Your task to perform on an android device: change the clock display to digital Image 0: 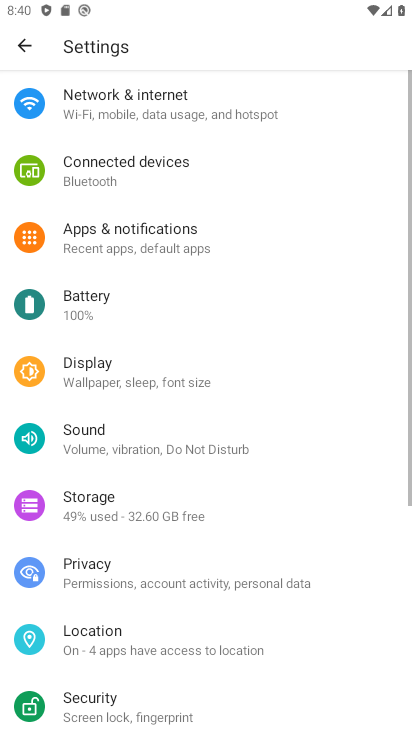
Step 0: press home button
Your task to perform on an android device: change the clock display to digital Image 1: 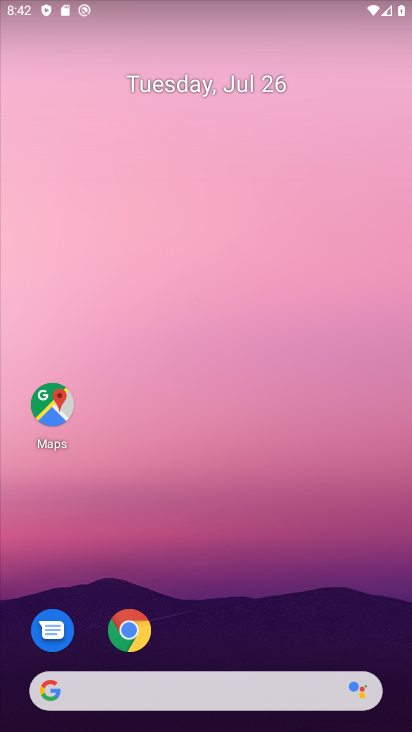
Step 1: drag from (296, 669) to (334, 70)
Your task to perform on an android device: change the clock display to digital Image 2: 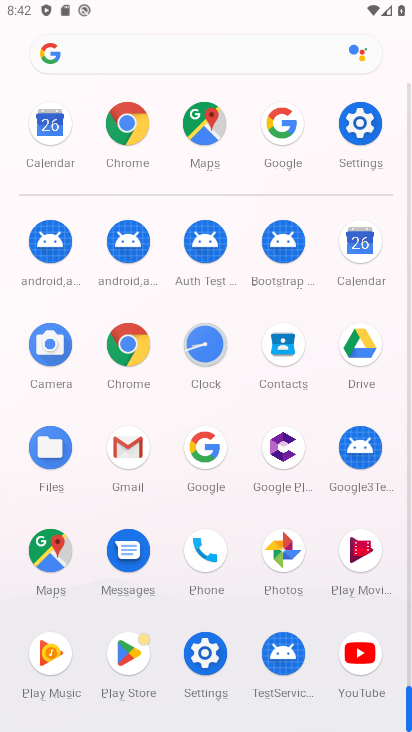
Step 2: click (191, 346)
Your task to perform on an android device: change the clock display to digital Image 3: 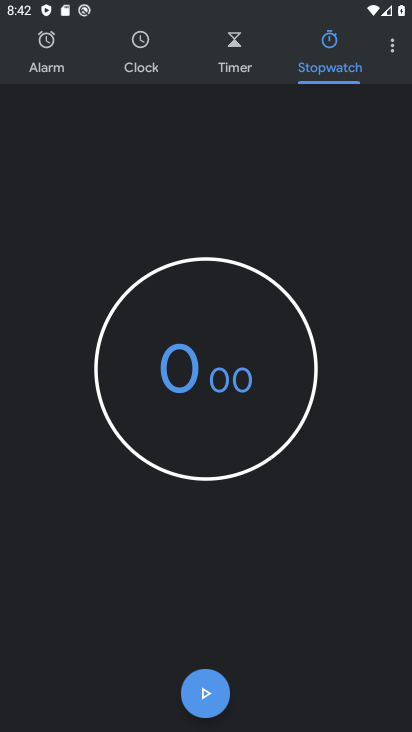
Step 3: click (386, 34)
Your task to perform on an android device: change the clock display to digital Image 4: 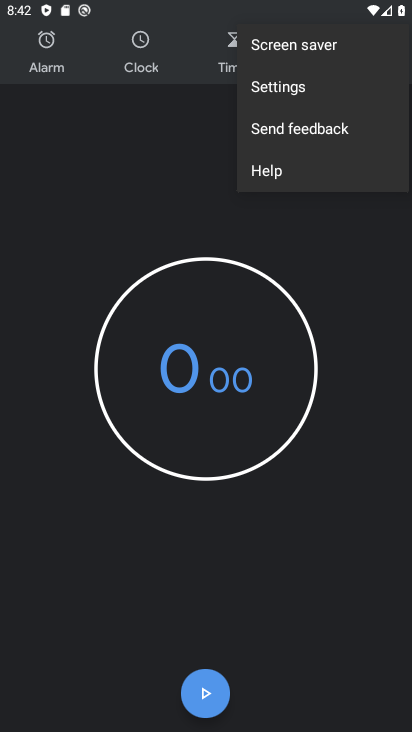
Step 4: click (292, 83)
Your task to perform on an android device: change the clock display to digital Image 5: 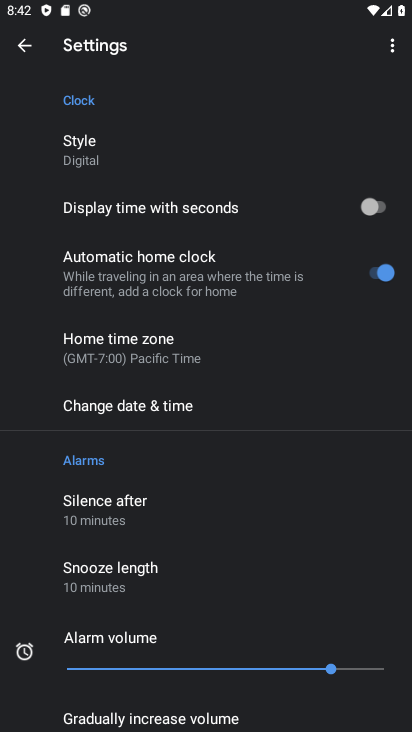
Step 5: click (102, 160)
Your task to perform on an android device: change the clock display to digital Image 6: 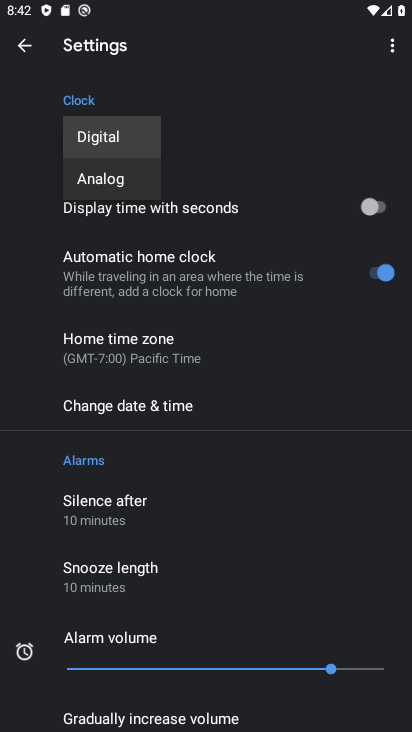
Step 6: task complete